Your task to perform on an android device: open app "Google News" Image 0: 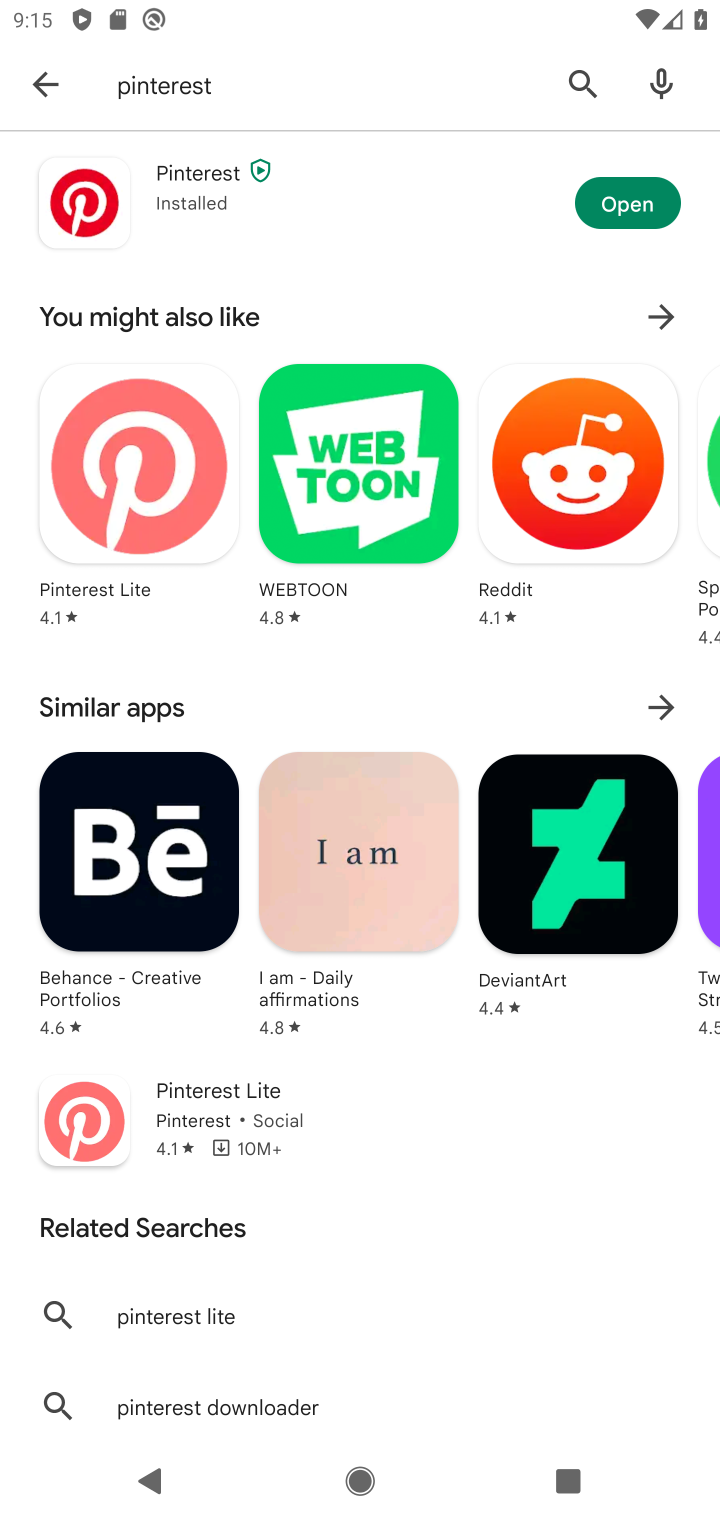
Step 0: press back button
Your task to perform on an android device: open app "Google News" Image 1: 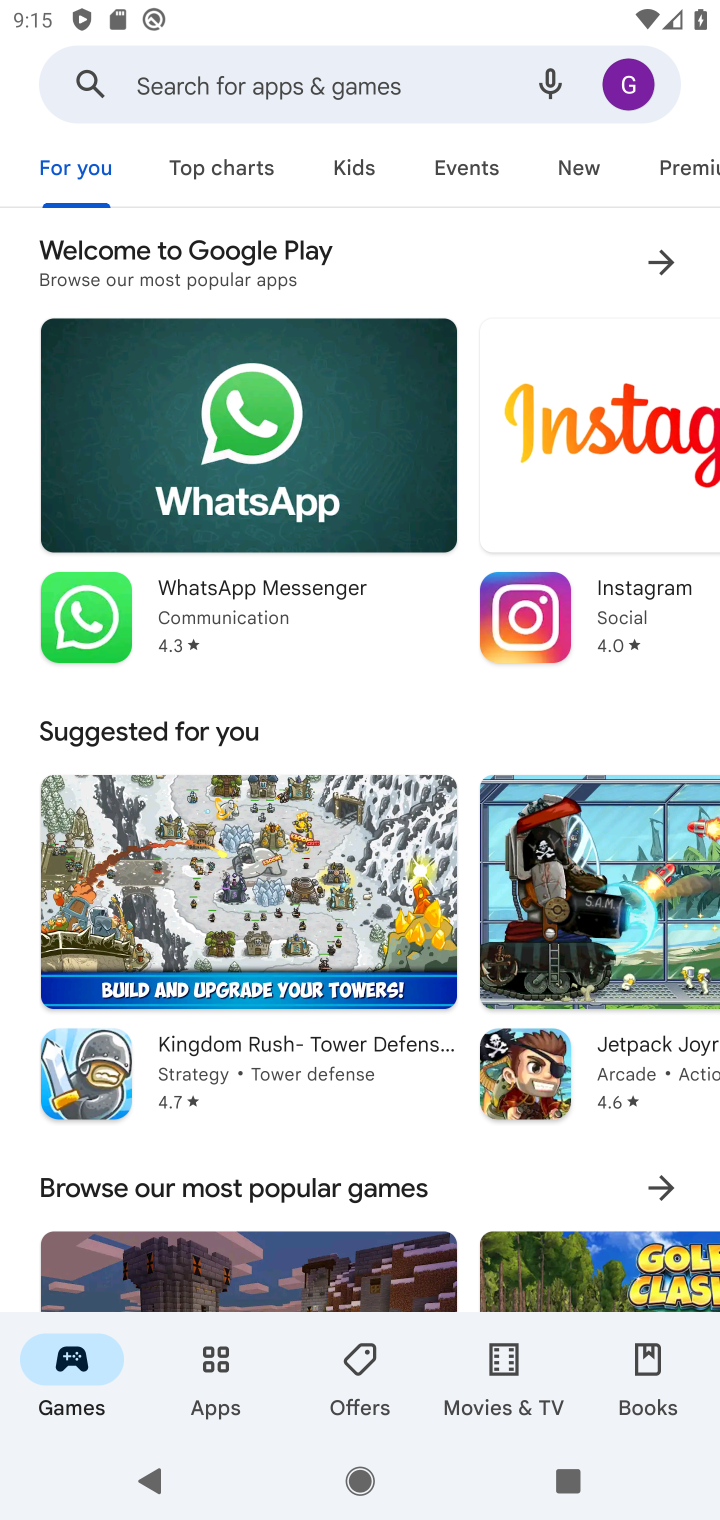
Step 1: click (336, 97)
Your task to perform on an android device: open app "Google News" Image 2: 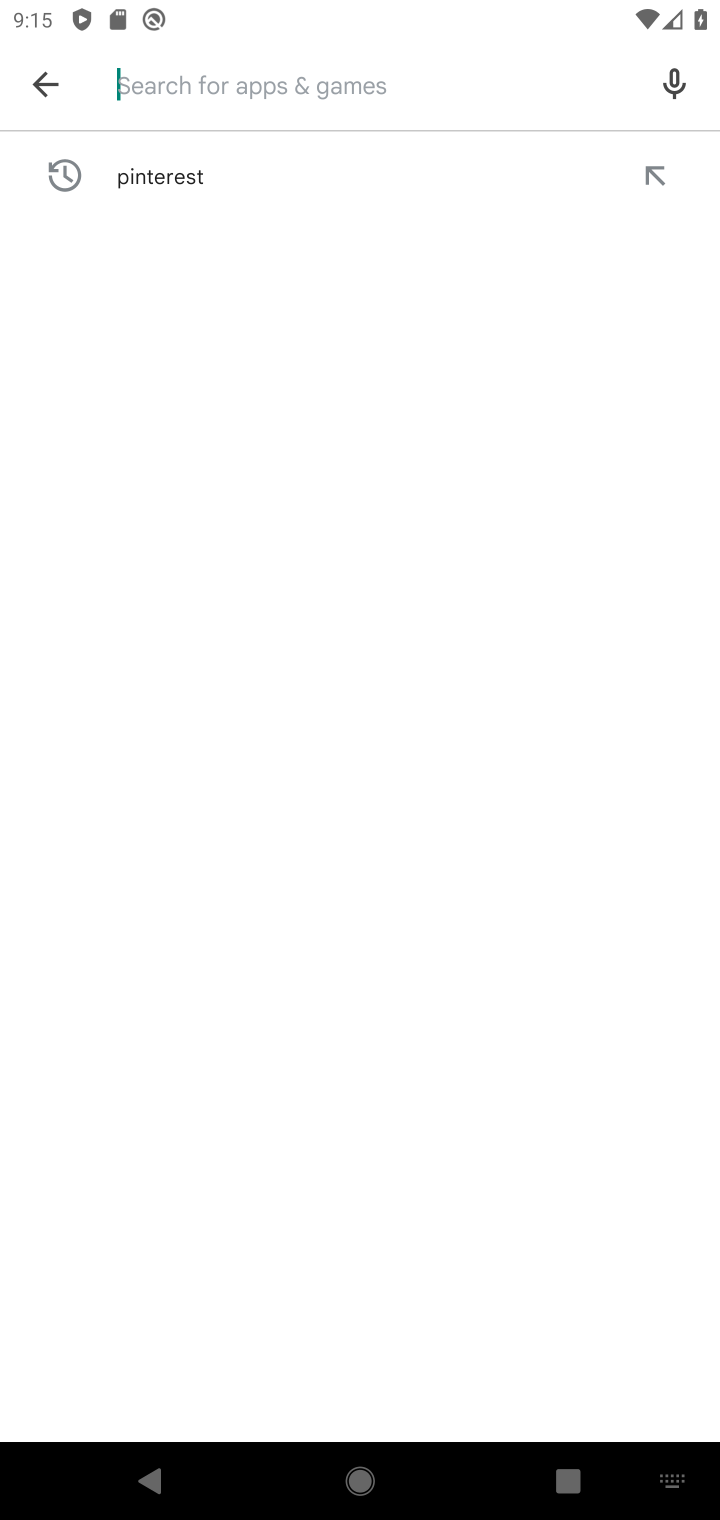
Step 2: type "google news"
Your task to perform on an android device: open app "Google News" Image 3: 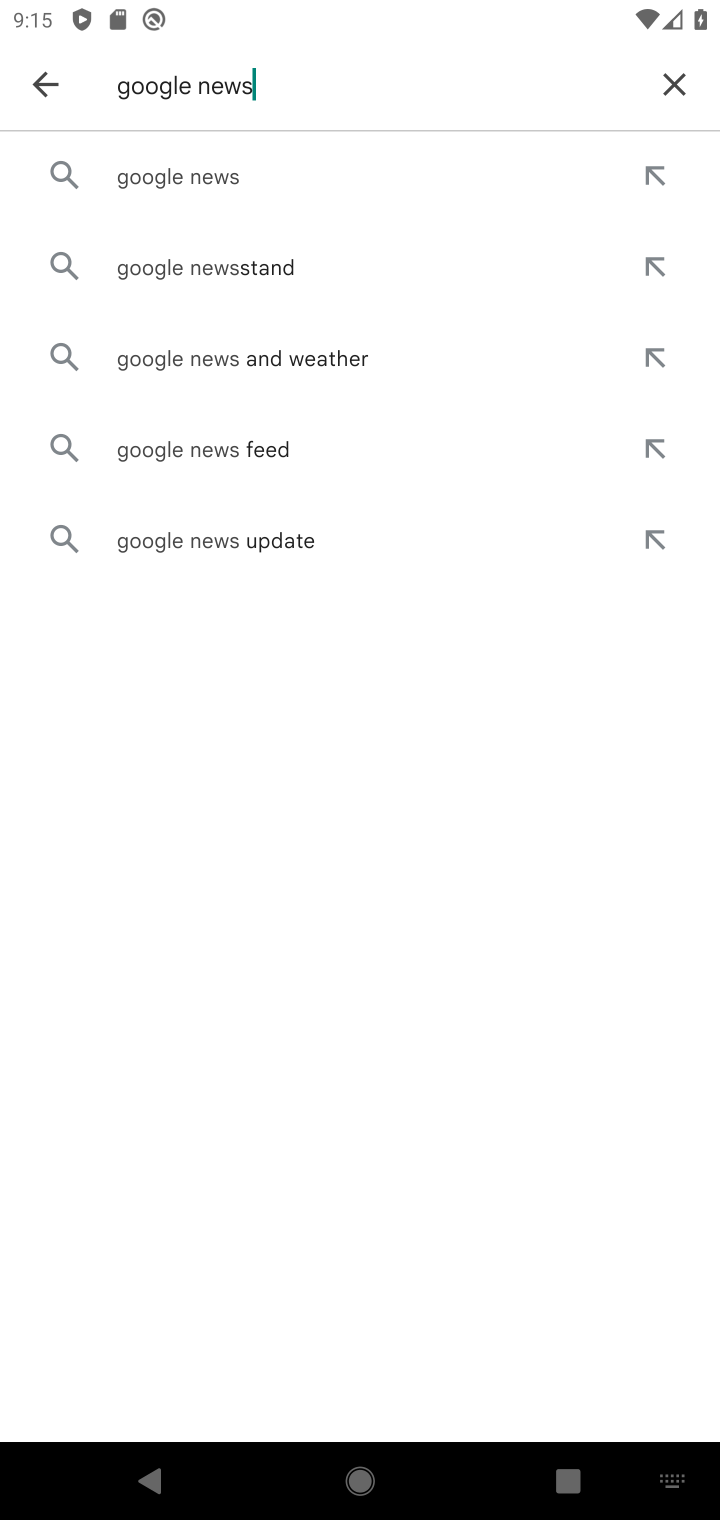
Step 3: click (163, 171)
Your task to perform on an android device: open app "Google News" Image 4: 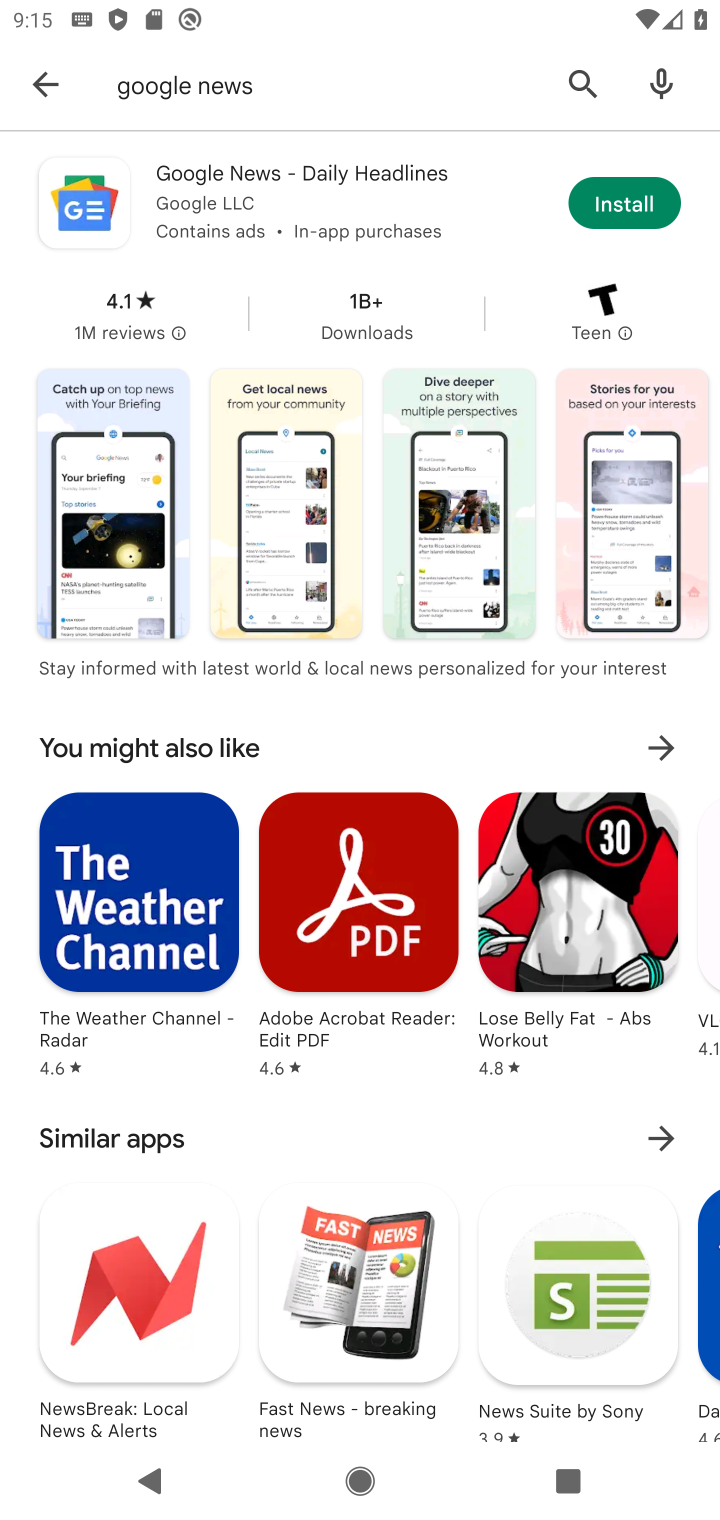
Step 4: task complete